Your task to perform on an android device: Show me recent news Image 0: 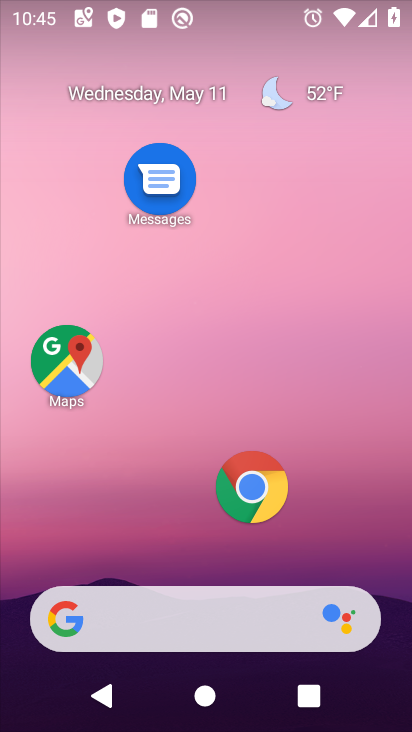
Step 0: drag from (208, 530) to (231, 263)
Your task to perform on an android device: Show me recent news Image 1: 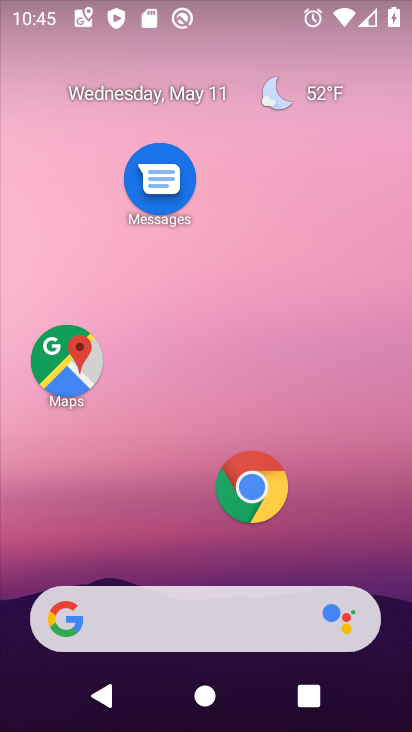
Step 1: drag from (190, 573) to (212, 233)
Your task to perform on an android device: Show me recent news Image 2: 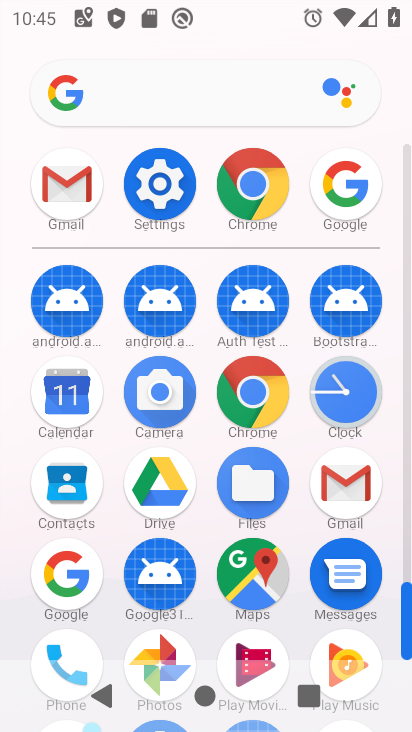
Step 2: click (58, 551)
Your task to perform on an android device: Show me recent news Image 3: 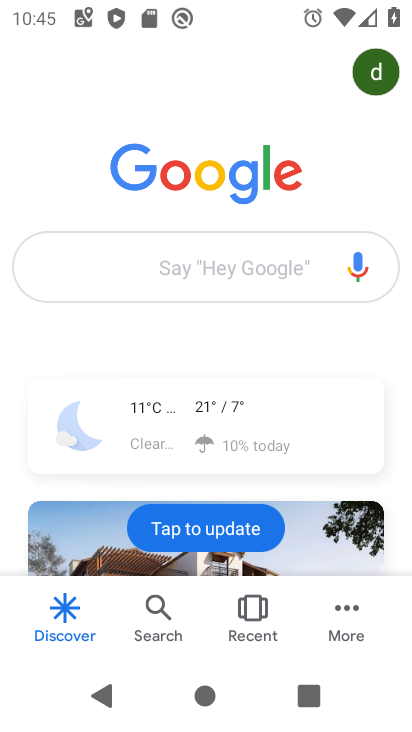
Step 3: click (196, 275)
Your task to perform on an android device: Show me recent news Image 4: 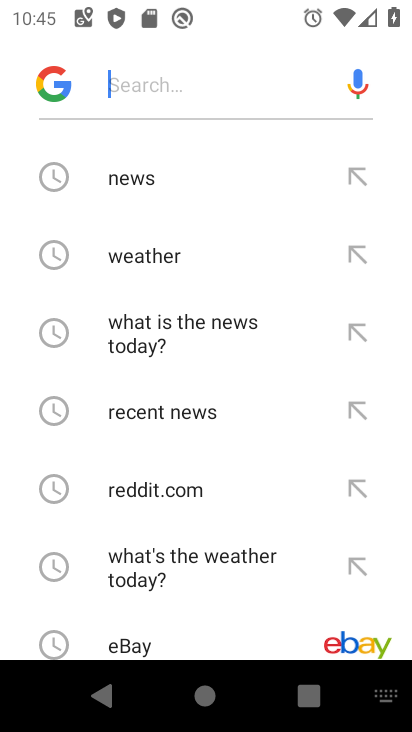
Step 4: click (150, 181)
Your task to perform on an android device: Show me recent news Image 5: 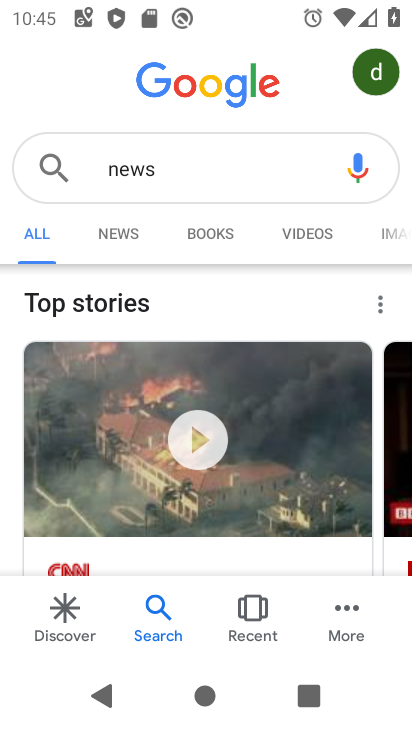
Step 5: click (105, 239)
Your task to perform on an android device: Show me recent news Image 6: 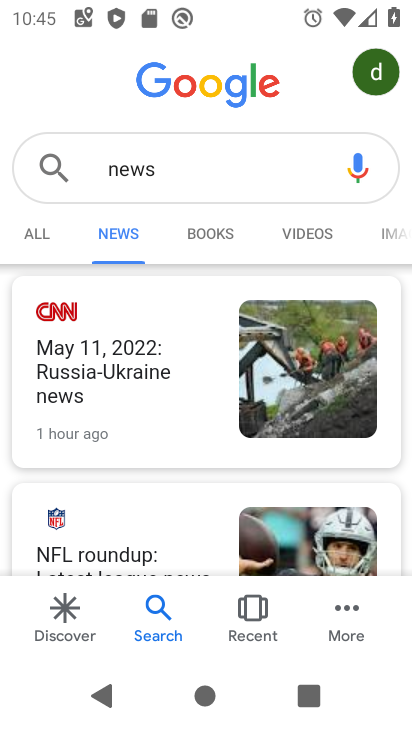
Step 6: task complete